Your task to perform on an android device: What's the weather going to be tomorrow? Image 0: 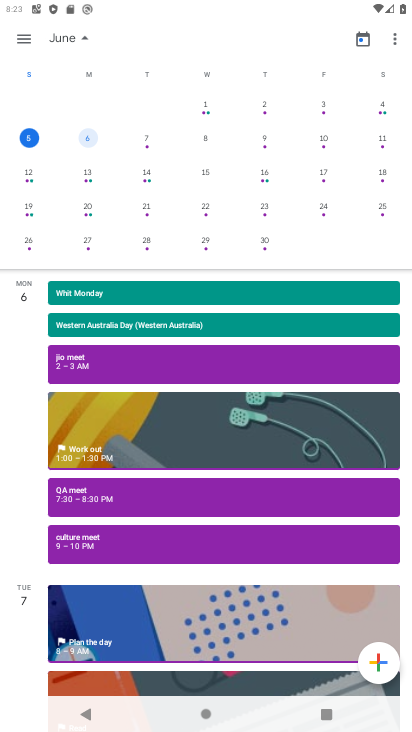
Step 0: press home button
Your task to perform on an android device: What's the weather going to be tomorrow? Image 1: 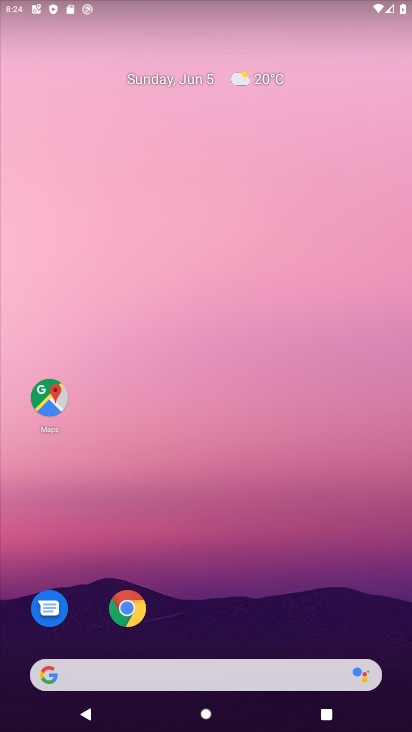
Step 1: click (141, 670)
Your task to perform on an android device: What's the weather going to be tomorrow? Image 2: 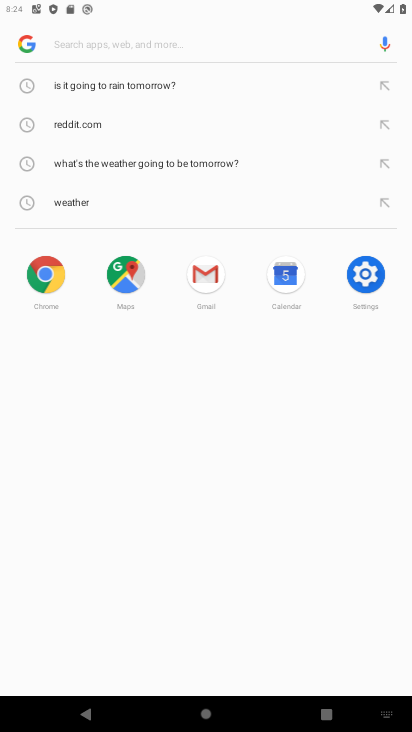
Step 2: click (133, 25)
Your task to perform on an android device: What's the weather going to be tomorrow? Image 3: 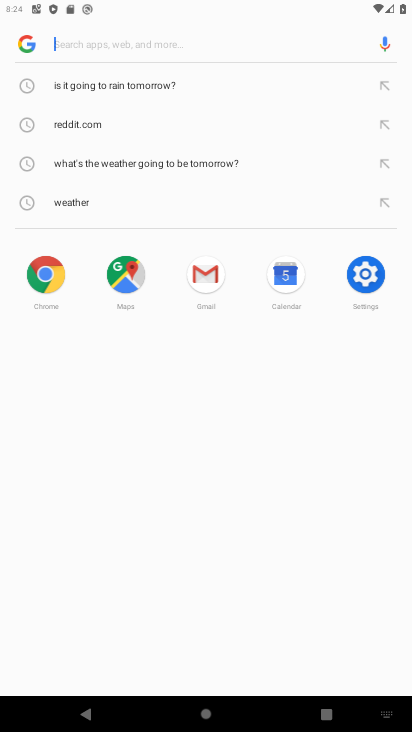
Step 3: type "weather"
Your task to perform on an android device: What's the weather going to be tomorrow? Image 4: 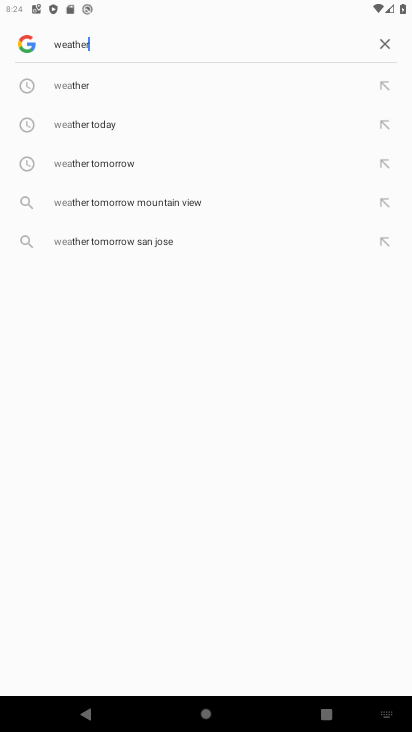
Step 4: type ""
Your task to perform on an android device: What's the weather going to be tomorrow? Image 5: 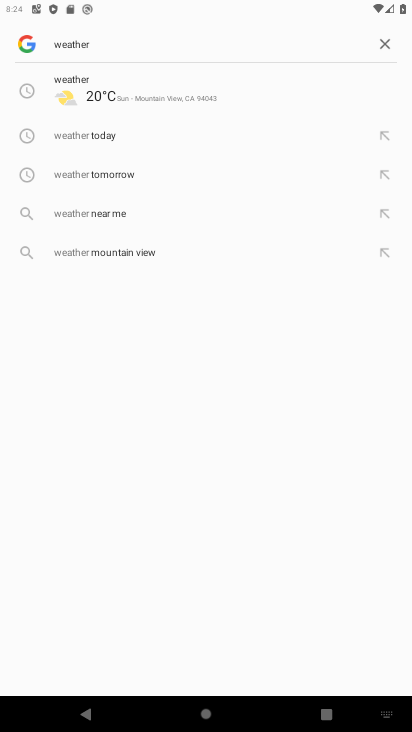
Step 5: click (78, 87)
Your task to perform on an android device: What's the weather going to be tomorrow? Image 6: 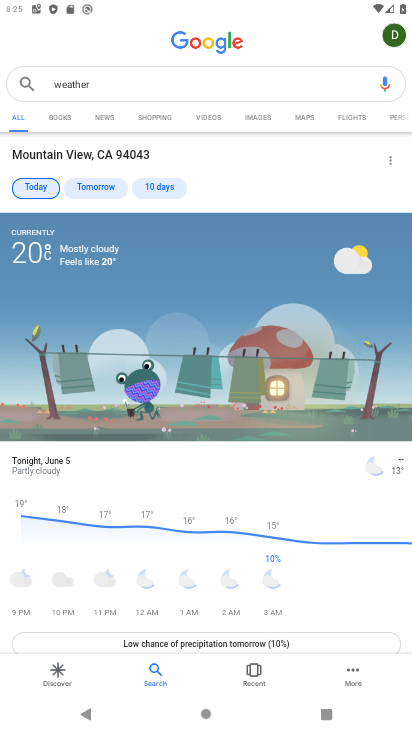
Step 6: click (92, 183)
Your task to perform on an android device: What's the weather going to be tomorrow? Image 7: 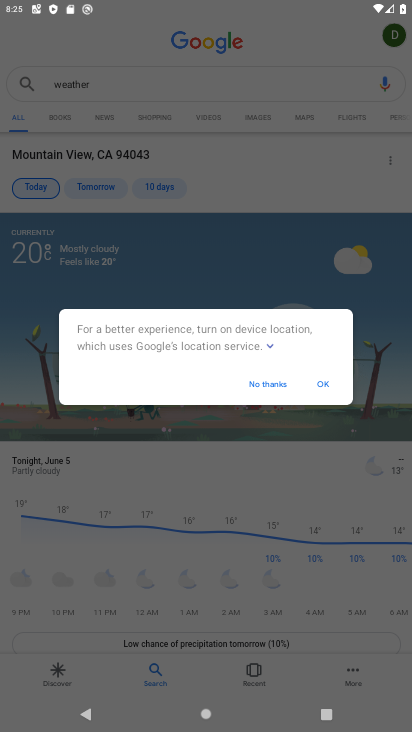
Step 7: click (255, 383)
Your task to perform on an android device: What's the weather going to be tomorrow? Image 8: 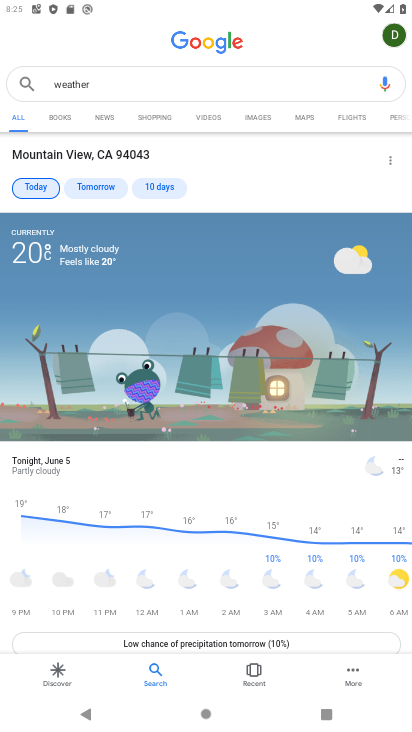
Step 8: task complete